Your task to perform on an android device: turn on the 12-hour format for clock Image 0: 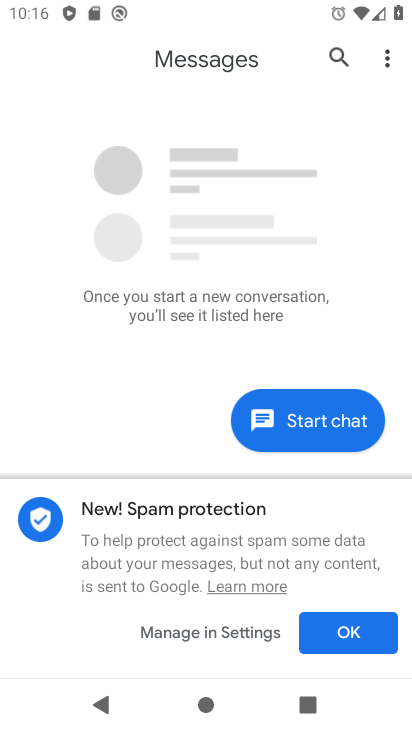
Step 0: press back button
Your task to perform on an android device: turn on the 12-hour format for clock Image 1: 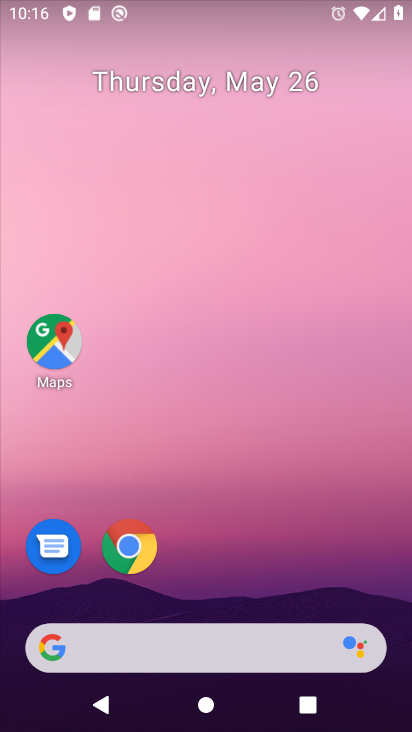
Step 1: drag from (244, 559) to (189, 54)
Your task to perform on an android device: turn on the 12-hour format for clock Image 2: 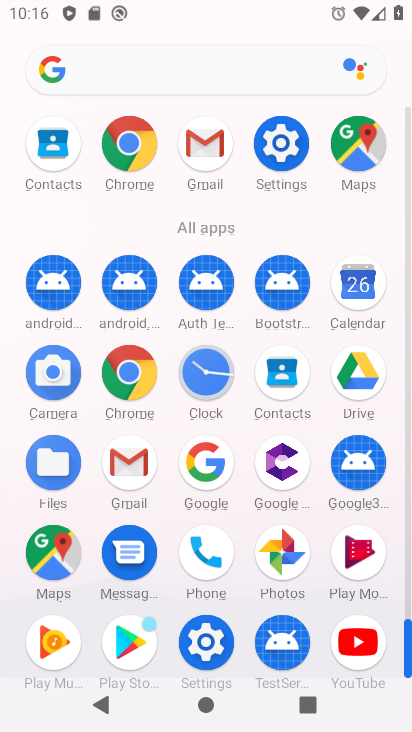
Step 2: click (207, 374)
Your task to perform on an android device: turn on the 12-hour format for clock Image 3: 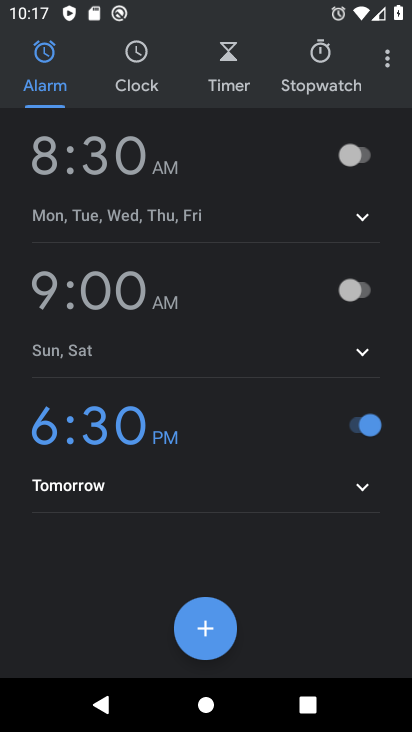
Step 3: click (393, 62)
Your task to perform on an android device: turn on the 12-hour format for clock Image 4: 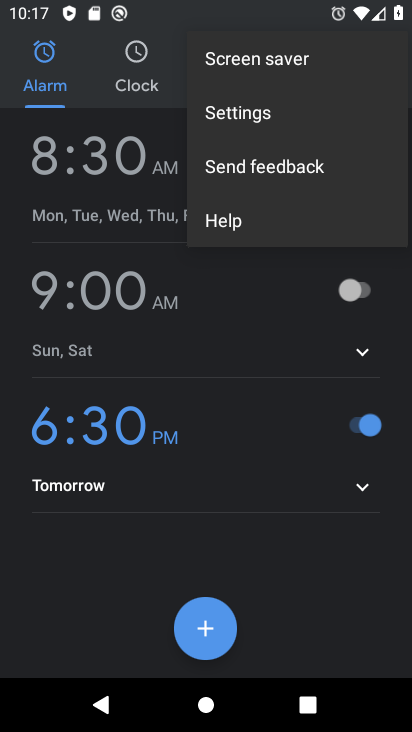
Step 4: click (255, 112)
Your task to perform on an android device: turn on the 12-hour format for clock Image 5: 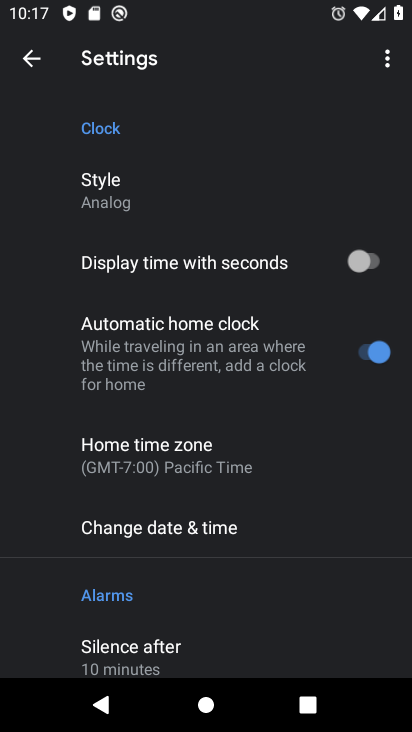
Step 5: click (189, 530)
Your task to perform on an android device: turn on the 12-hour format for clock Image 6: 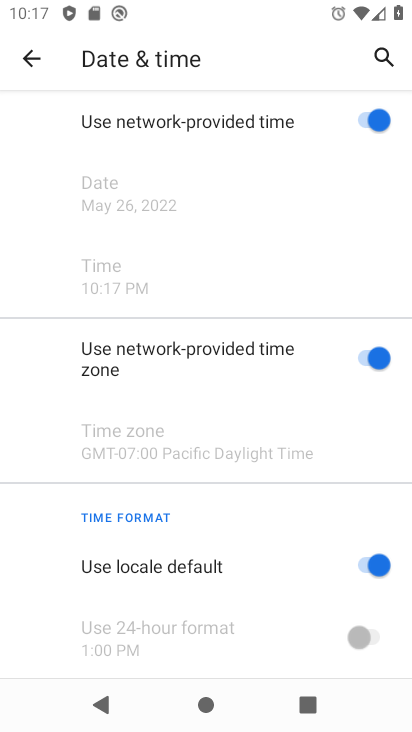
Step 6: task complete